Your task to perform on an android device: Clear the cart on walmart. Search for "razer blade" on walmart, select the first entry, and add it to the cart. Image 0: 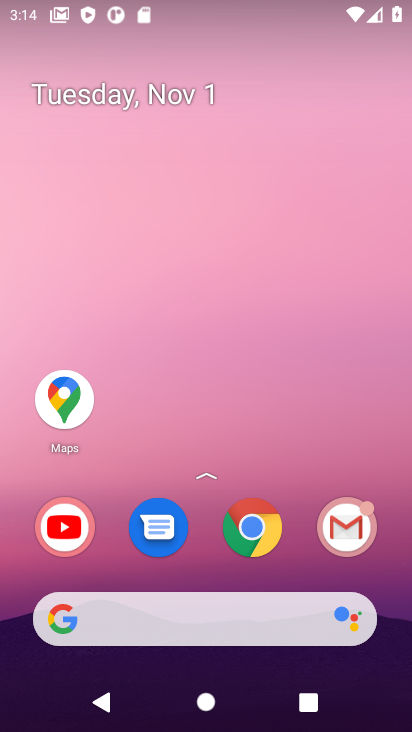
Step 0: click (207, 635)
Your task to perform on an android device: Clear the cart on walmart. Search for "razer blade" on walmart, select the first entry, and add it to the cart. Image 1: 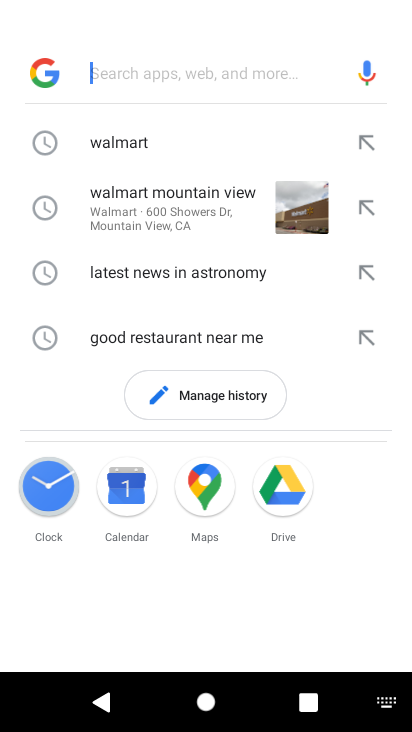
Step 1: click (105, 164)
Your task to perform on an android device: Clear the cart on walmart. Search for "razer blade" on walmart, select the first entry, and add it to the cart. Image 2: 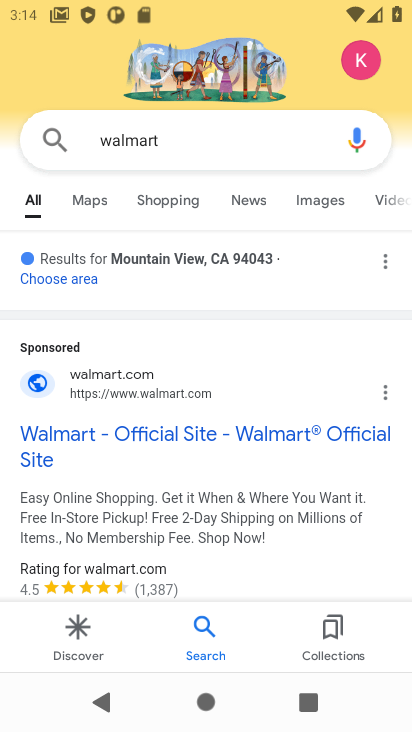
Step 2: click (88, 372)
Your task to perform on an android device: Clear the cart on walmart. Search for "razer blade" on walmart, select the first entry, and add it to the cart. Image 3: 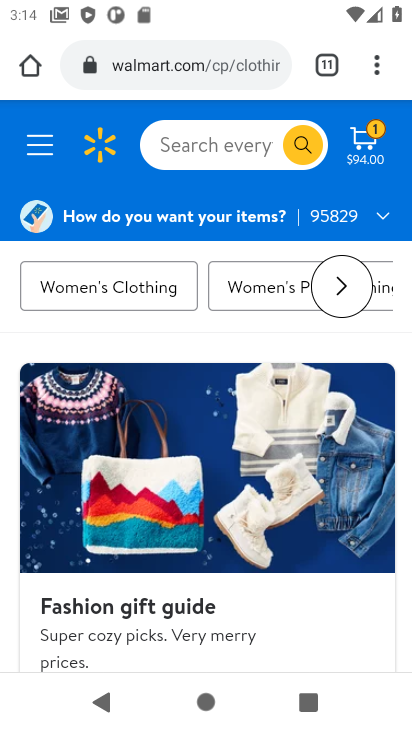
Step 3: click (194, 142)
Your task to perform on an android device: Clear the cart on walmart. Search for "razer blade" on walmart, select the first entry, and add it to the cart. Image 4: 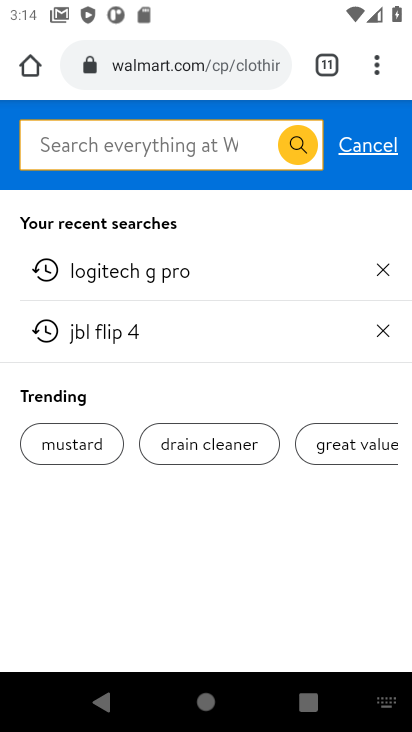
Step 4: type "razer blade"
Your task to perform on an android device: Clear the cart on walmart. Search for "razer blade" on walmart, select the first entry, and add it to the cart. Image 5: 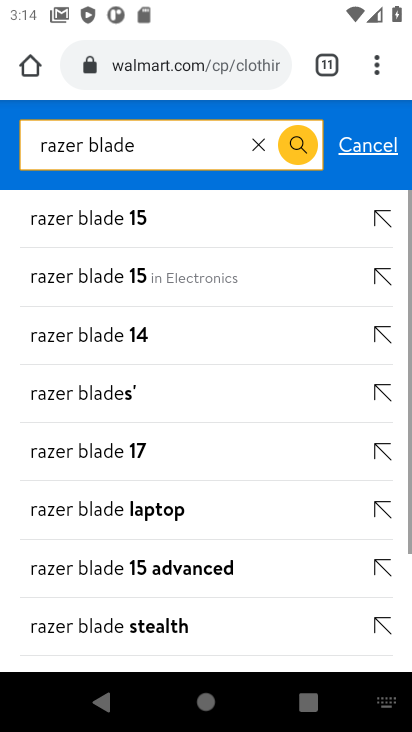
Step 5: click (114, 387)
Your task to perform on an android device: Clear the cart on walmart. Search for "razer blade" on walmart, select the first entry, and add it to the cart. Image 6: 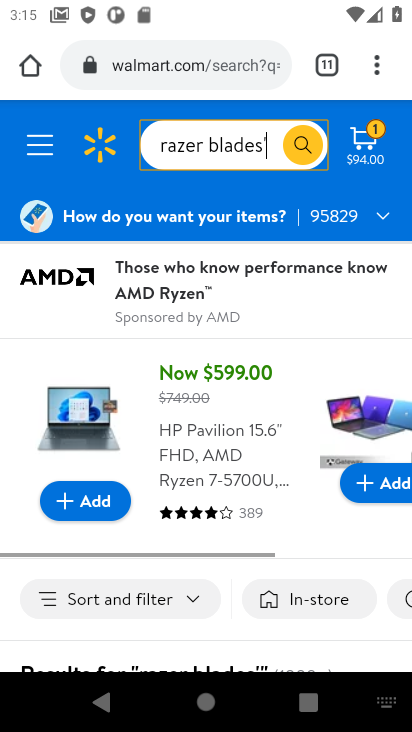
Step 6: click (79, 500)
Your task to perform on an android device: Clear the cart on walmart. Search for "razer blade" on walmart, select the first entry, and add it to the cart. Image 7: 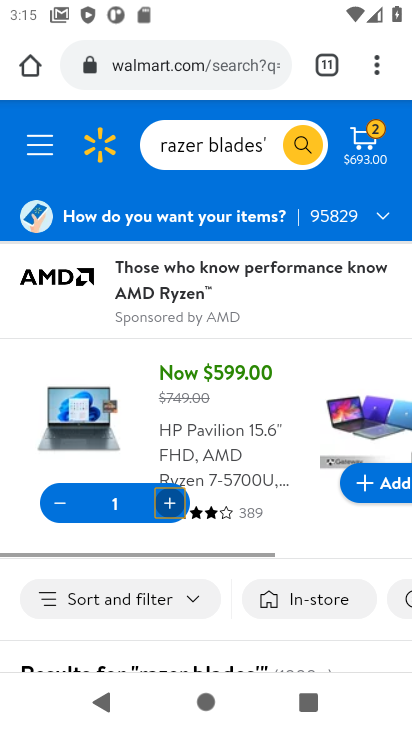
Step 7: click (366, 145)
Your task to perform on an android device: Clear the cart on walmart. Search for "razer blade" on walmart, select the first entry, and add it to the cart. Image 8: 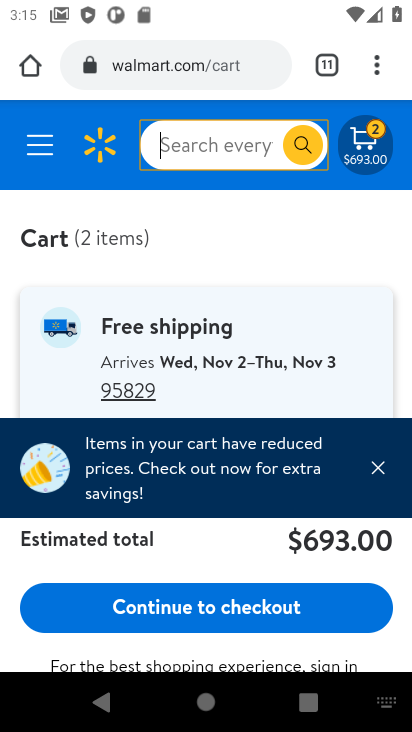
Step 8: click (190, 604)
Your task to perform on an android device: Clear the cart on walmart. Search for "razer blade" on walmart, select the first entry, and add it to the cart. Image 9: 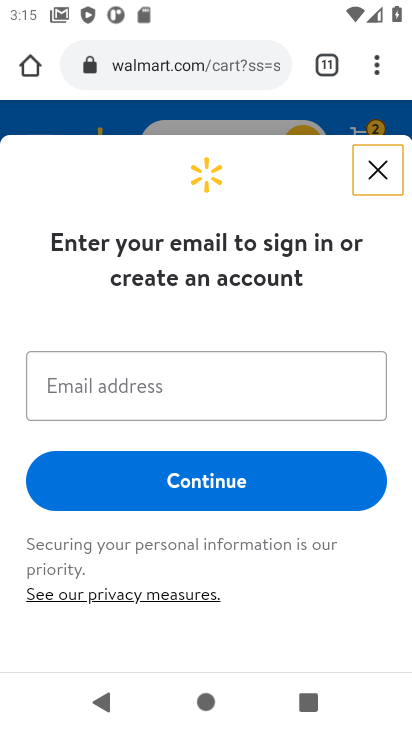
Step 9: task complete